Your task to perform on an android device: create a new album in the google photos Image 0: 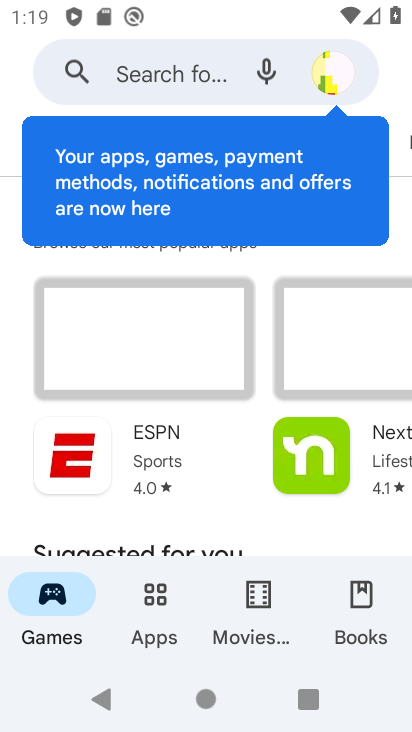
Step 0: press home button
Your task to perform on an android device: create a new album in the google photos Image 1: 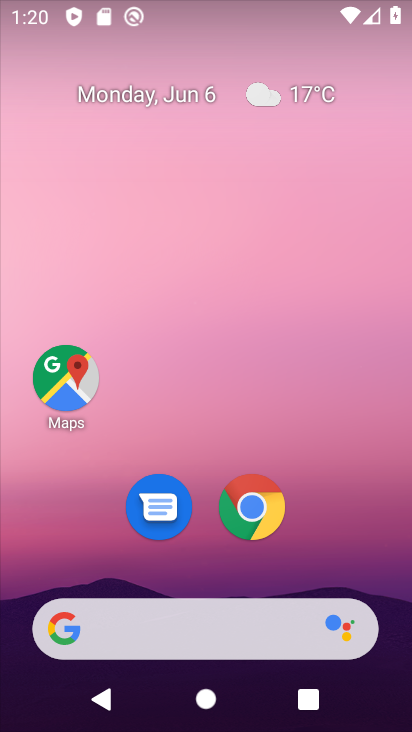
Step 1: drag from (262, 670) to (182, 145)
Your task to perform on an android device: create a new album in the google photos Image 2: 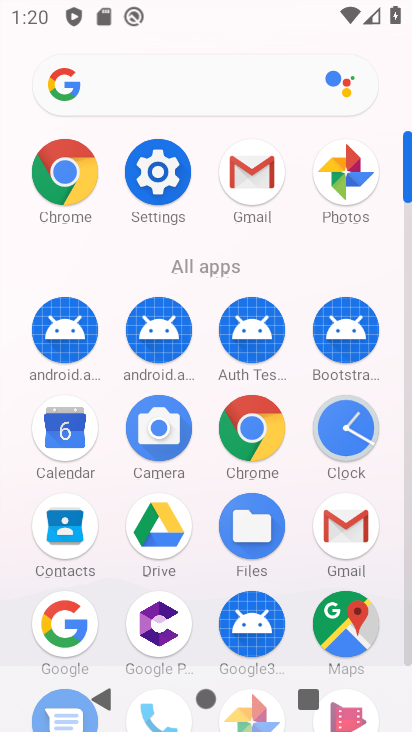
Step 2: drag from (194, 565) to (206, 435)
Your task to perform on an android device: create a new album in the google photos Image 3: 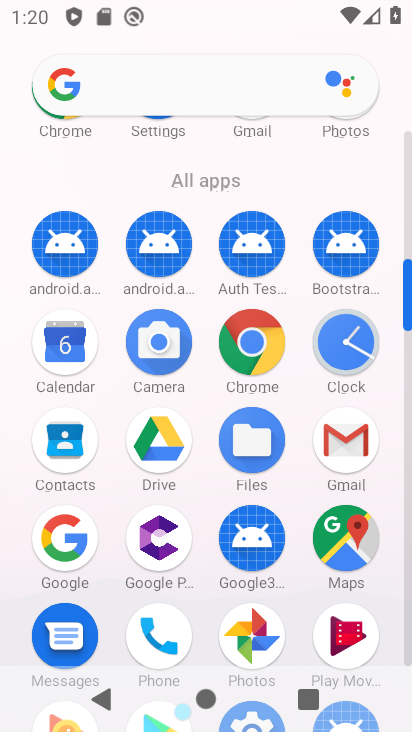
Step 3: click (251, 636)
Your task to perform on an android device: create a new album in the google photos Image 4: 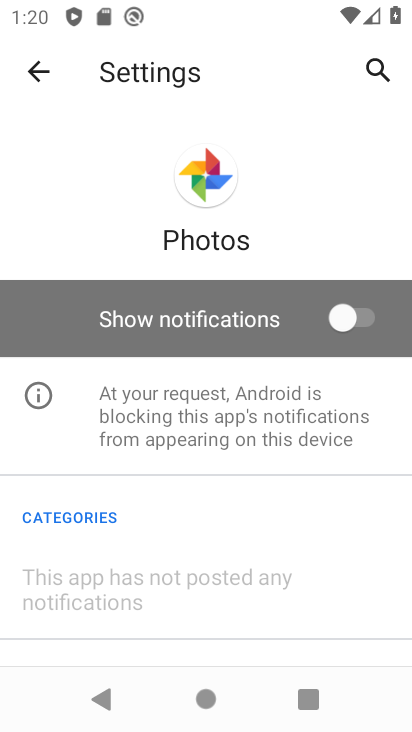
Step 4: click (21, 60)
Your task to perform on an android device: create a new album in the google photos Image 5: 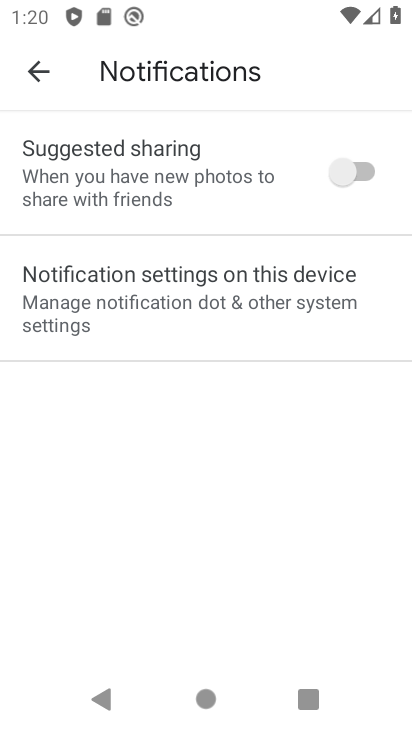
Step 5: click (32, 51)
Your task to perform on an android device: create a new album in the google photos Image 6: 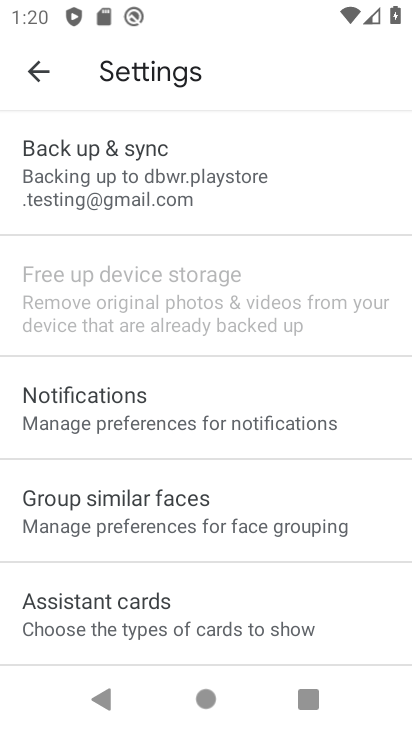
Step 6: click (31, 83)
Your task to perform on an android device: create a new album in the google photos Image 7: 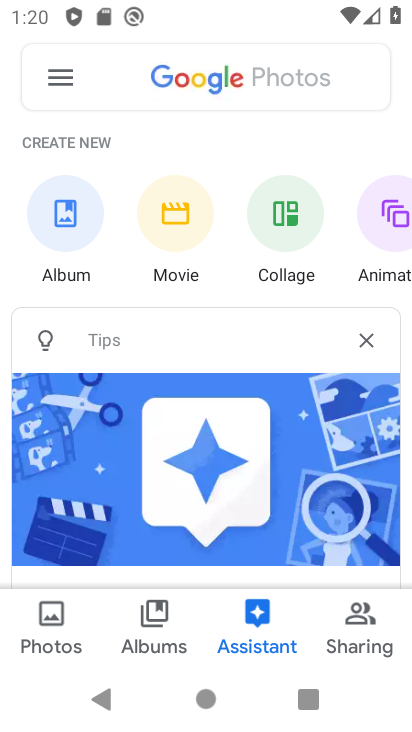
Step 7: click (60, 628)
Your task to perform on an android device: create a new album in the google photos Image 8: 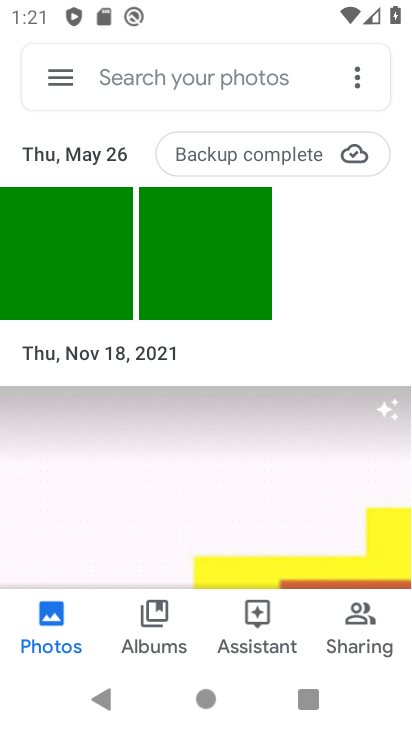
Step 8: click (259, 534)
Your task to perform on an android device: create a new album in the google photos Image 9: 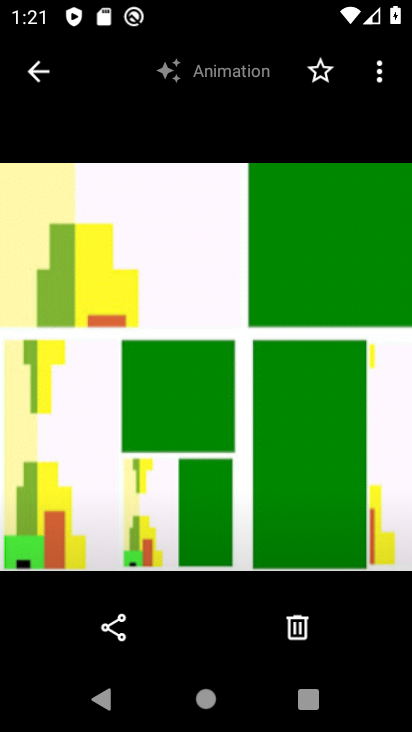
Step 9: click (382, 55)
Your task to perform on an android device: create a new album in the google photos Image 10: 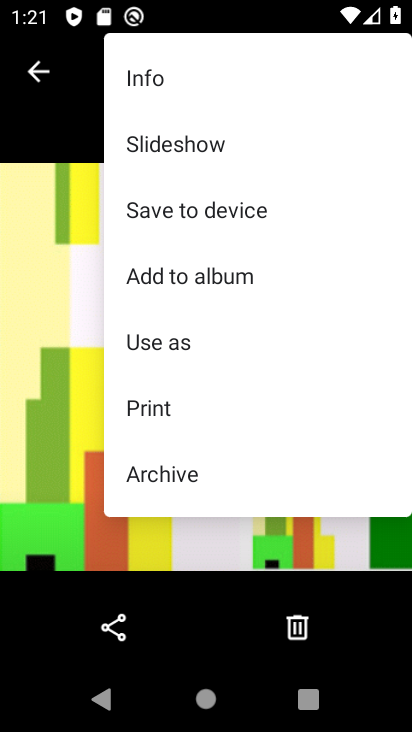
Step 10: click (185, 266)
Your task to perform on an android device: create a new album in the google photos Image 11: 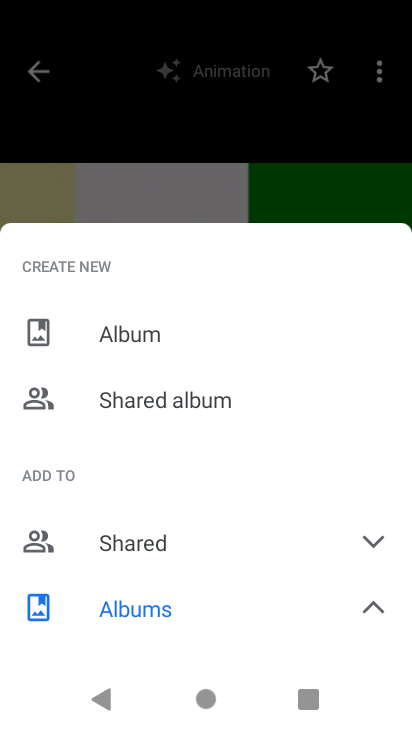
Step 11: click (77, 330)
Your task to perform on an android device: create a new album in the google photos Image 12: 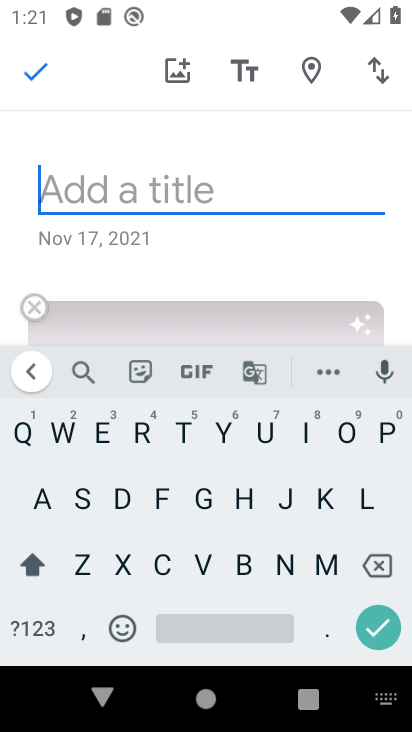
Step 12: click (216, 482)
Your task to perform on an android device: create a new album in the google photos Image 13: 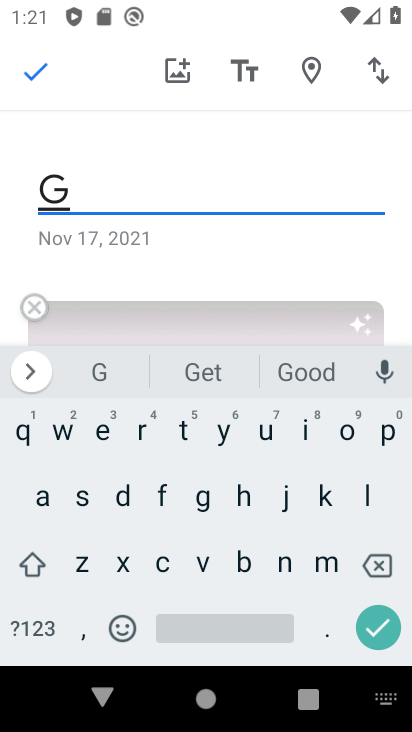
Step 13: click (39, 503)
Your task to perform on an android device: create a new album in the google photos Image 14: 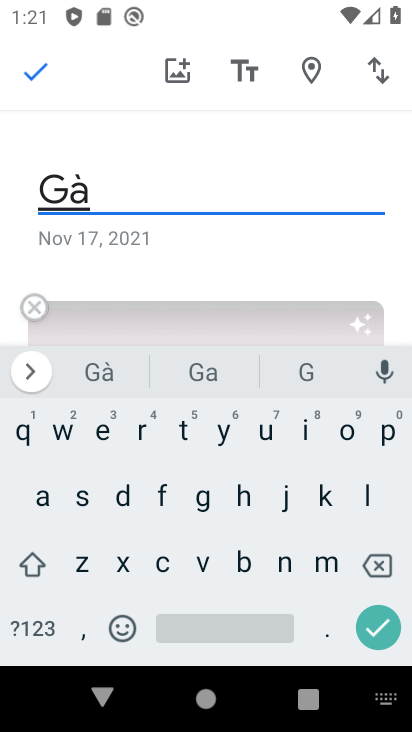
Step 14: click (40, 79)
Your task to perform on an android device: create a new album in the google photos Image 15: 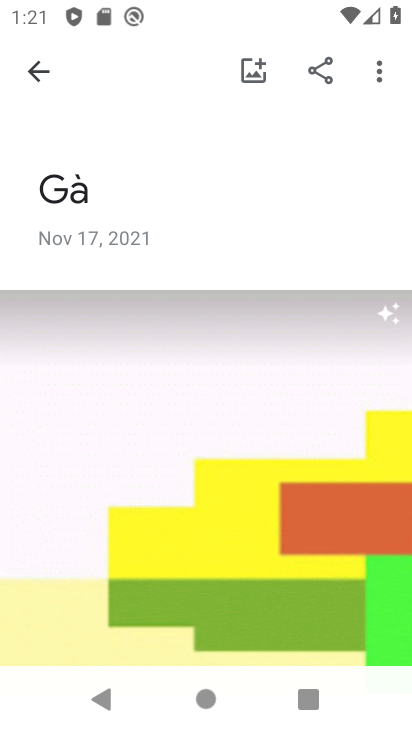
Step 15: task complete